Your task to perform on an android device: What's on my calendar today? Image 0: 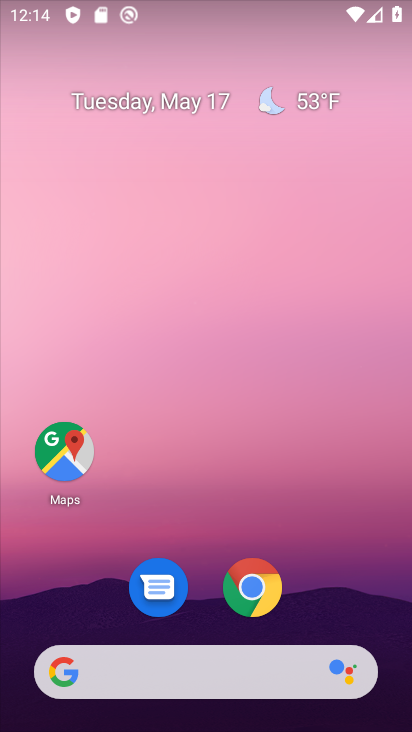
Step 0: drag from (214, 607) to (267, 79)
Your task to perform on an android device: What's on my calendar today? Image 1: 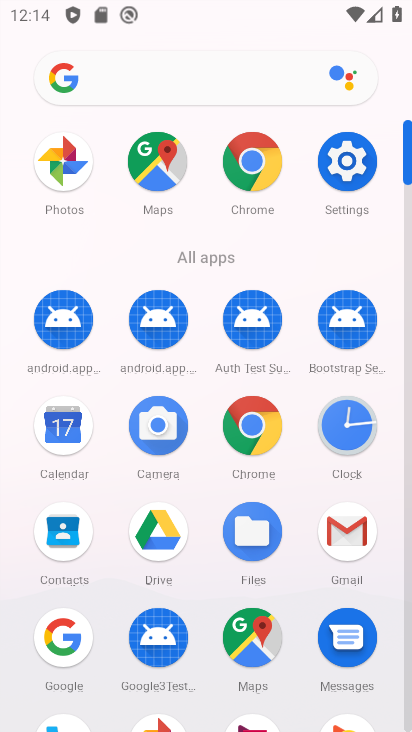
Step 1: click (77, 436)
Your task to perform on an android device: What's on my calendar today? Image 2: 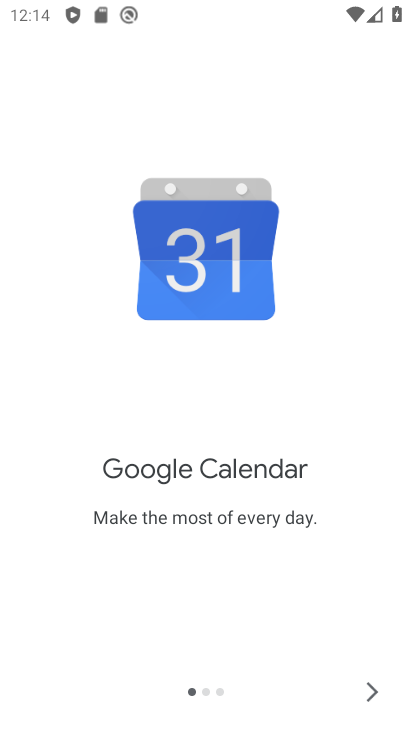
Step 2: click (368, 689)
Your task to perform on an android device: What's on my calendar today? Image 3: 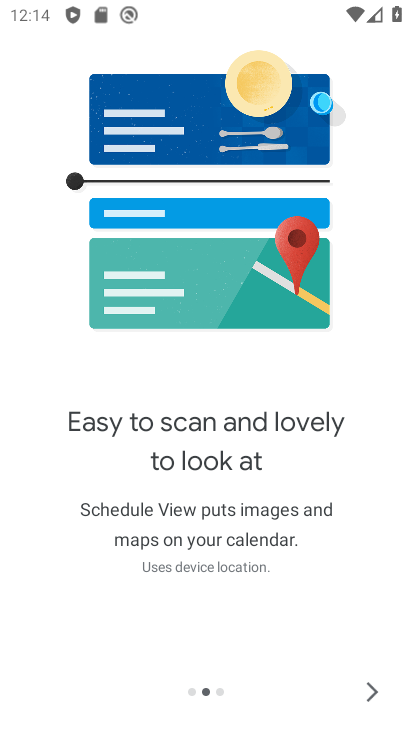
Step 3: click (368, 689)
Your task to perform on an android device: What's on my calendar today? Image 4: 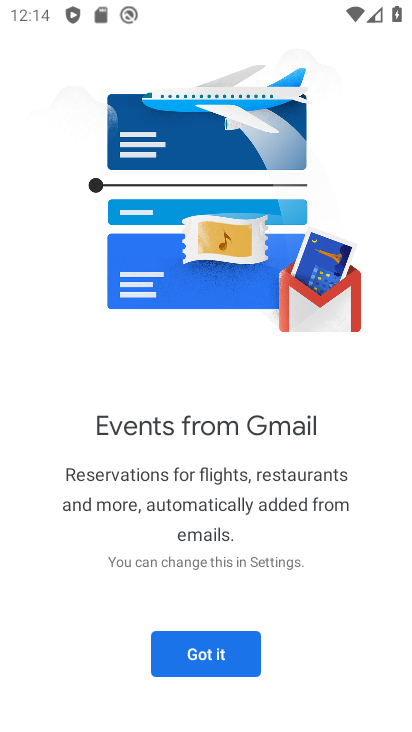
Step 4: click (217, 648)
Your task to perform on an android device: What's on my calendar today? Image 5: 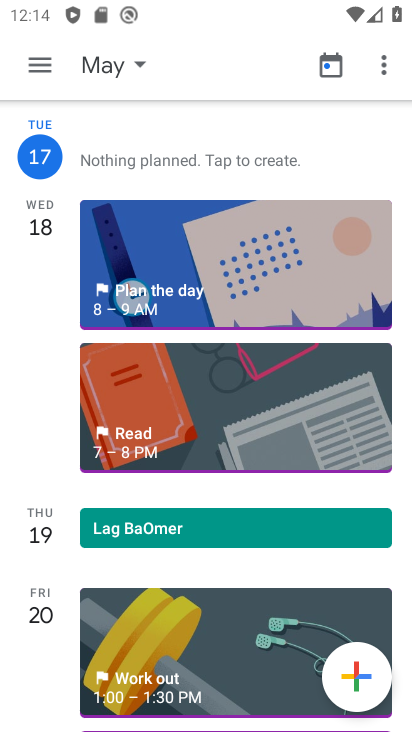
Step 5: click (45, 71)
Your task to perform on an android device: What's on my calendar today? Image 6: 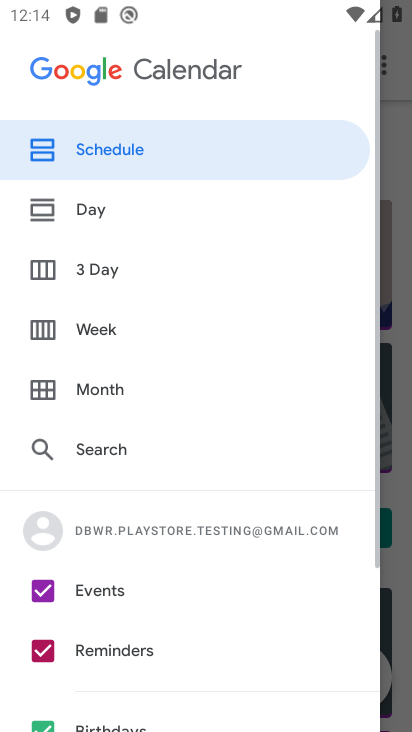
Step 6: click (82, 218)
Your task to perform on an android device: What's on my calendar today? Image 7: 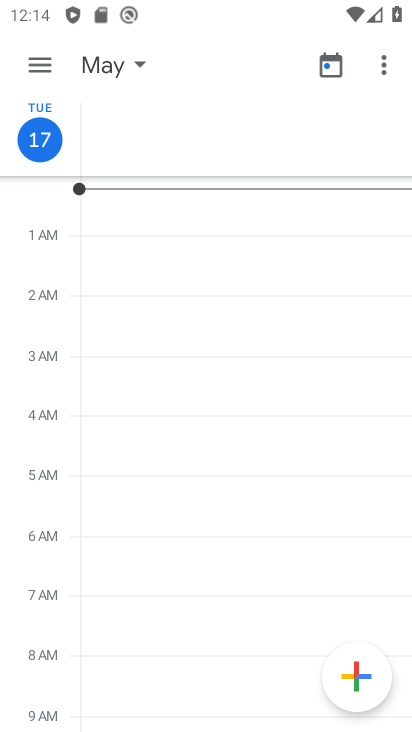
Step 7: task complete